Your task to perform on an android device: toggle notifications settings in the gmail app Image 0: 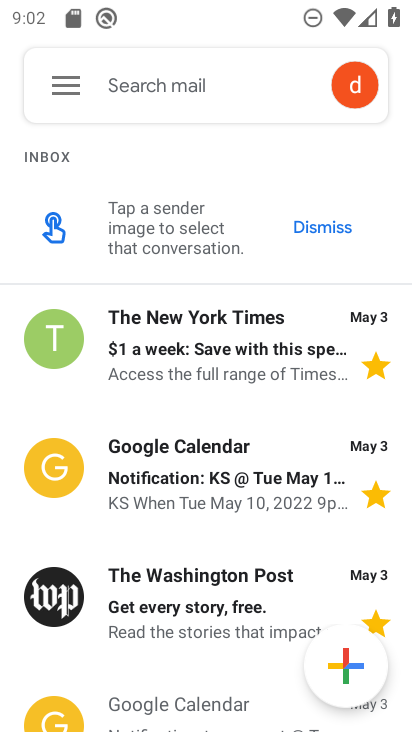
Step 0: click (62, 91)
Your task to perform on an android device: toggle notifications settings in the gmail app Image 1: 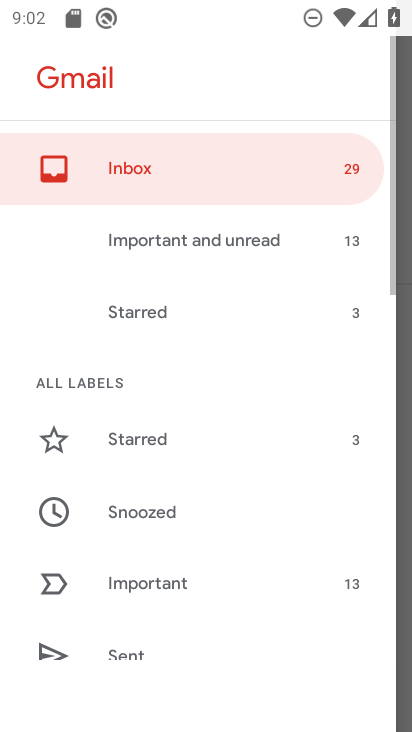
Step 1: drag from (277, 581) to (234, 101)
Your task to perform on an android device: toggle notifications settings in the gmail app Image 2: 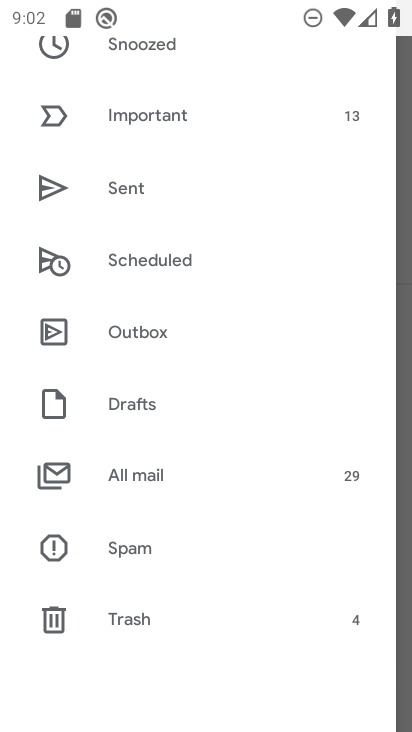
Step 2: drag from (157, 606) to (162, 93)
Your task to perform on an android device: toggle notifications settings in the gmail app Image 3: 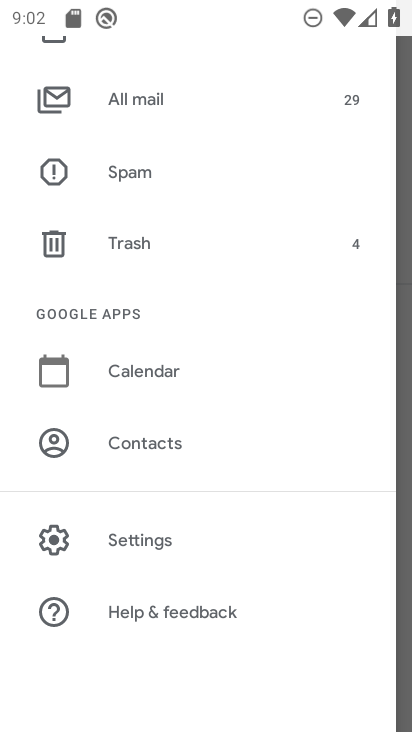
Step 3: click (112, 546)
Your task to perform on an android device: toggle notifications settings in the gmail app Image 4: 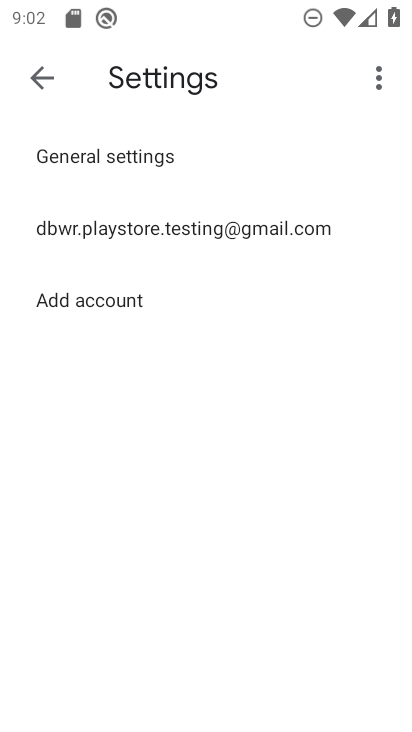
Step 4: click (93, 158)
Your task to perform on an android device: toggle notifications settings in the gmail app Image 5: 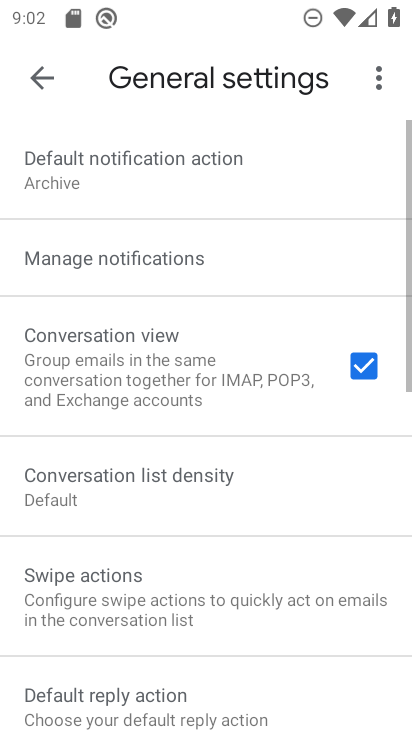
Step 5: click (98, 256)
Your task to perform on an android device: toggle notifications settings in the gmail app Image 6: 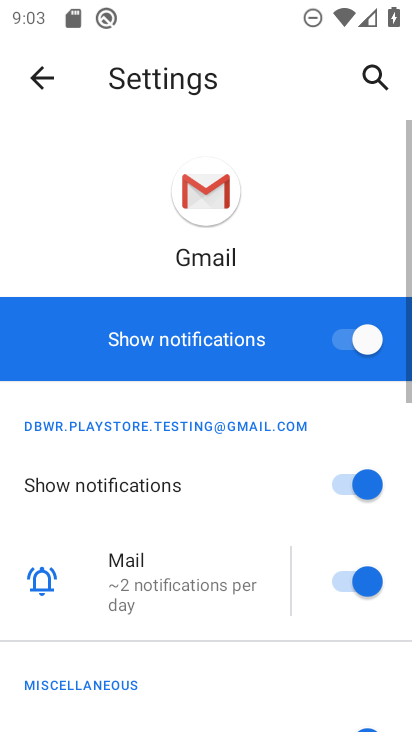
Step 6: click (381, 341)
Your task to perform on an android device: toggle notifications settings in the gmail app Image 7: 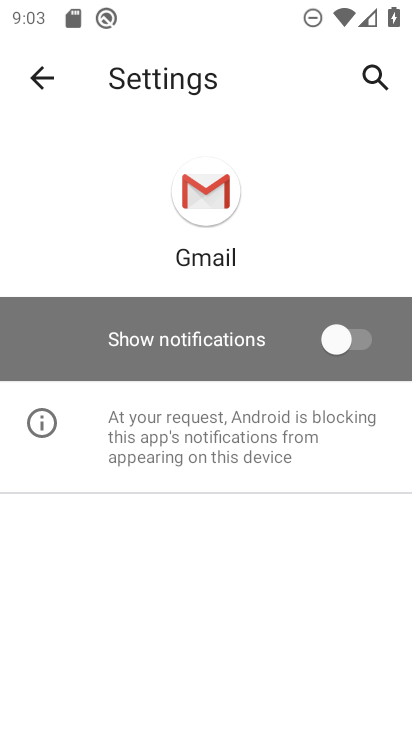
Step 7: task complete